Your task to perform on an android device: Open Google Chrome and open the bookmarks view Image 0: 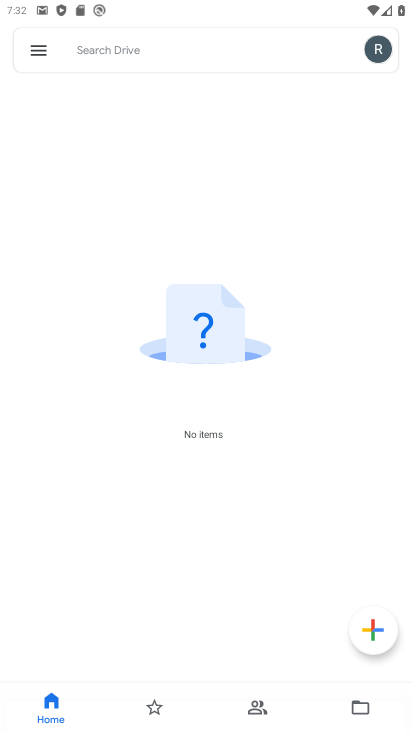
Step 0: press home button
Your task to perform on an android device: Open Google Chrome and open the bookmarks view Image 1: 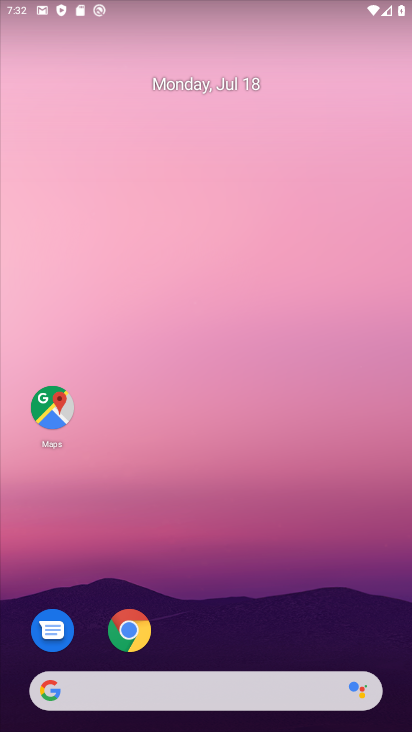
Step 1: drag from (187, 676) to (203, 132)
Your task to perform on an android device: Open Google Chrome and open the bookmarks view Image 2: 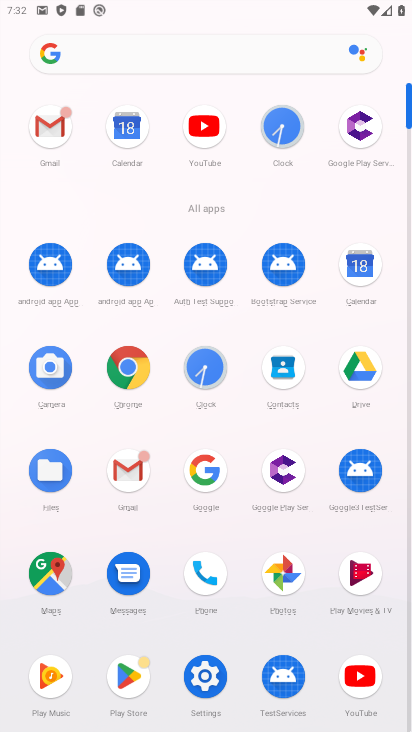
Step 2: click (215, 471)
Your task to perform on an android device: Open Google Chrome and open the bookmarks view Image 3: 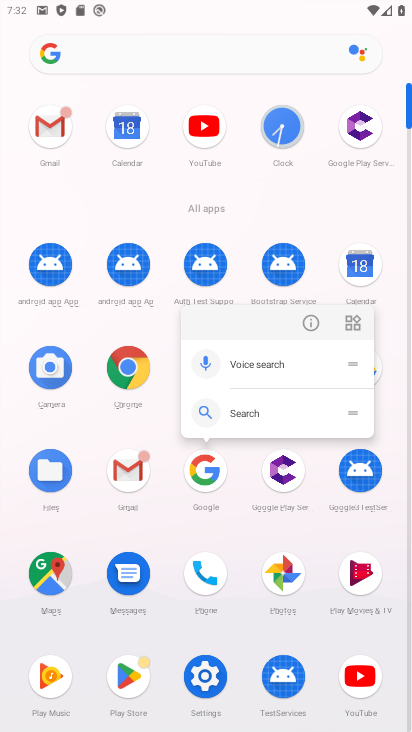
Step 3: click (128, 356)
Your task to perform on an android device: Open Google Chrome and open the bookmarks view Image 4: 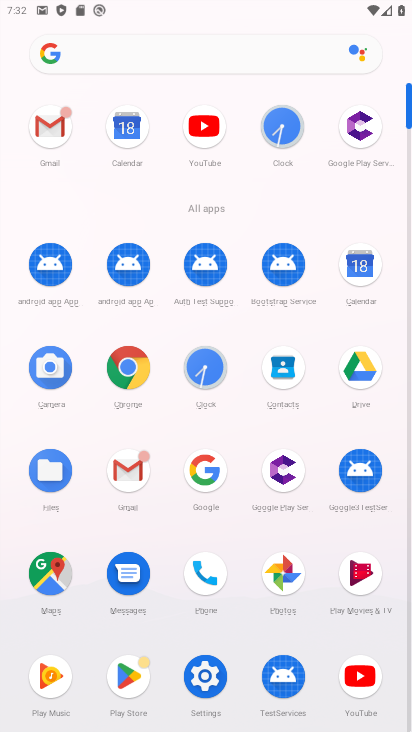
Step 4: click (136, 383)
Your task to perform on an android device: Open Google Chrome and open the bookmarks view Image 5: 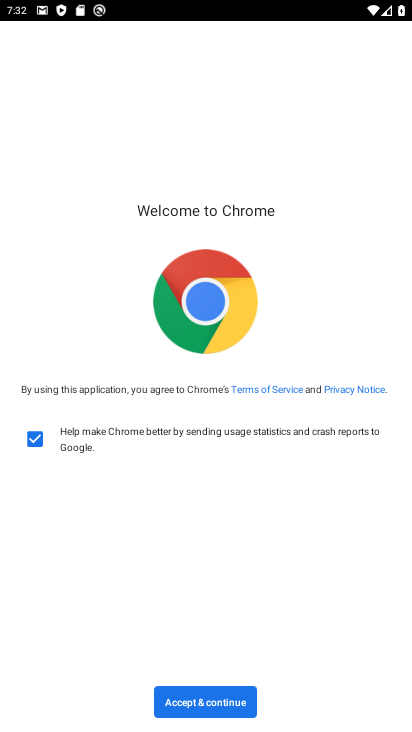
Step 5: click (220, 692)
Your task to perform on an android device: Open Google Chrome and open the bookmarks view Image 6: 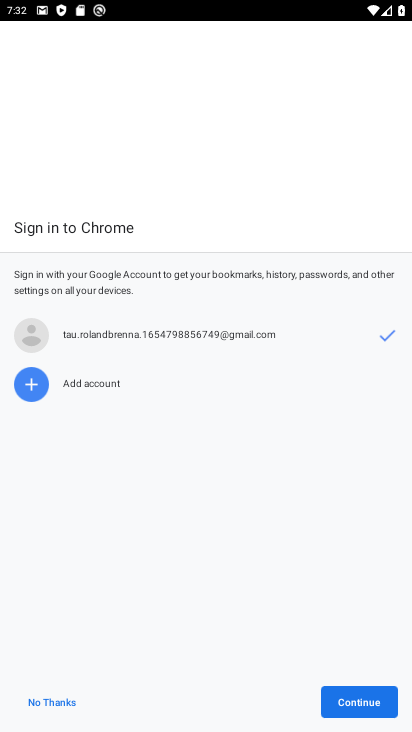
Step 6: click (359, 692)
Your task to perform on an android device: Open Google Chrome and open the bookmarks view Image 7: 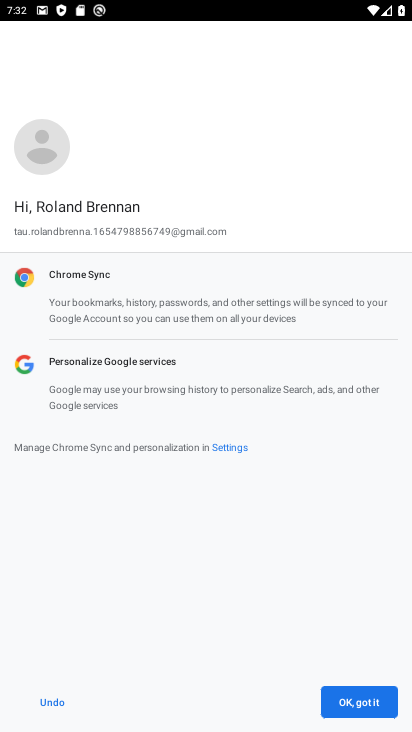
Step 7: click (348, 703)
Your task to perform on an android device: Open Google Chrome and open the bookmarks view Image 8: 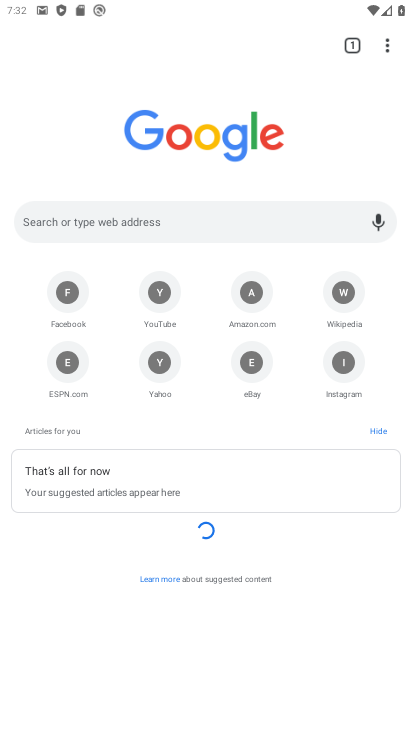
Step 8: click (394, 41)
Your task to perform on an android device: Open Google Chrome and open the bookmarks view Image 9: 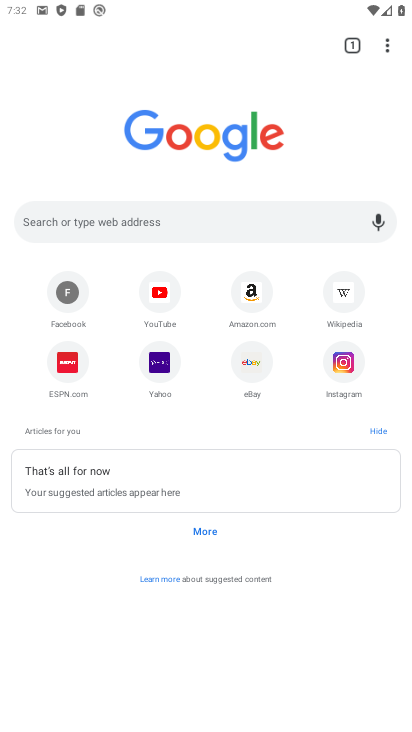
Step 9: click (392, 46)
Your task to perform on an android device: Open Google Chrome and open the bookmarks view Image 10: 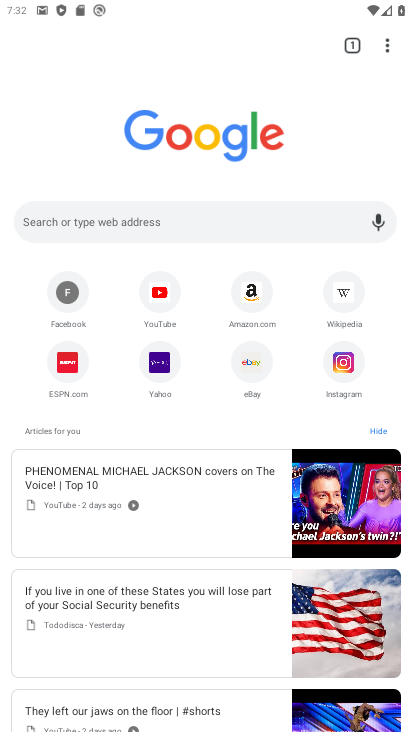
Step 10: click (386, 41)
Your task to perform on an android device: Open Google Chrome and open the bookmarks view Image 11: 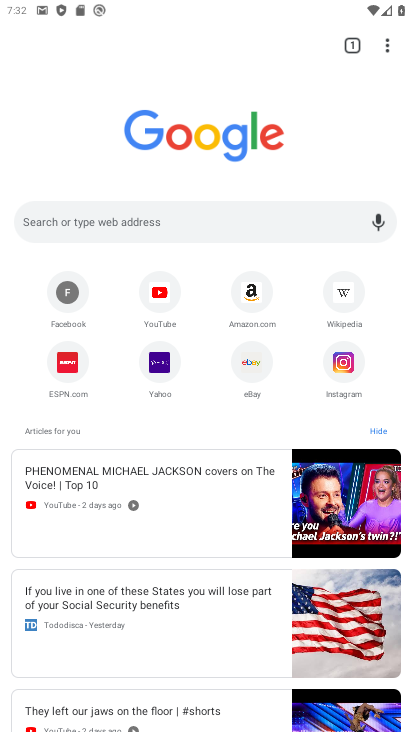
Step 11: click (389, 75)
Your task to perform on an android device: Open Google Chrome and open the bookmarks view Image 12: 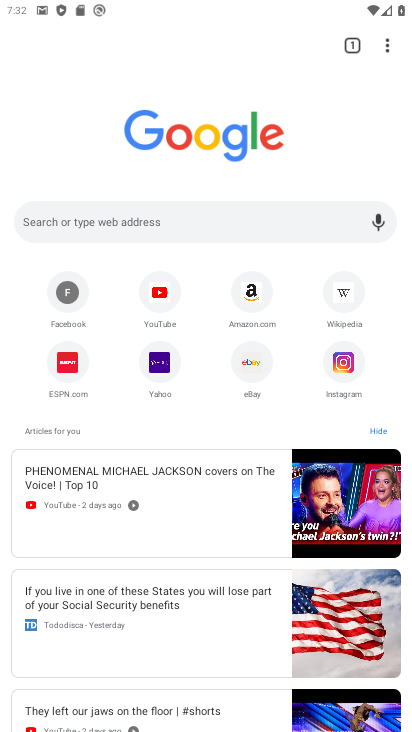
Step 12: click (391, 52)
Your task to perform on an android device: Open Google Chrome and open the bookmarks view Image 13: 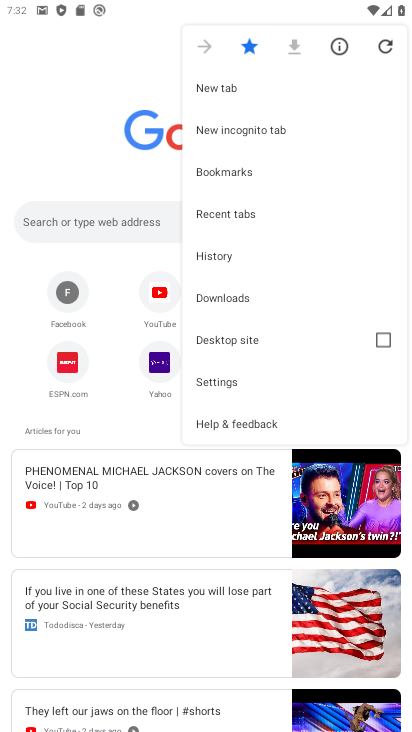
Step 13: click (237, 167)
Your task to perform on an android device: Open Google Chrome and open the bookmarks view Image 14: 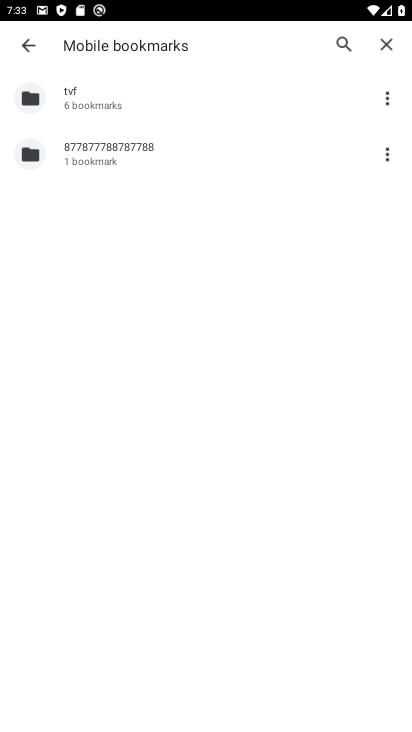
Step 14: task complete